Your task to perform on an android device: install app "Chime – Mobile Banking" Image 0: 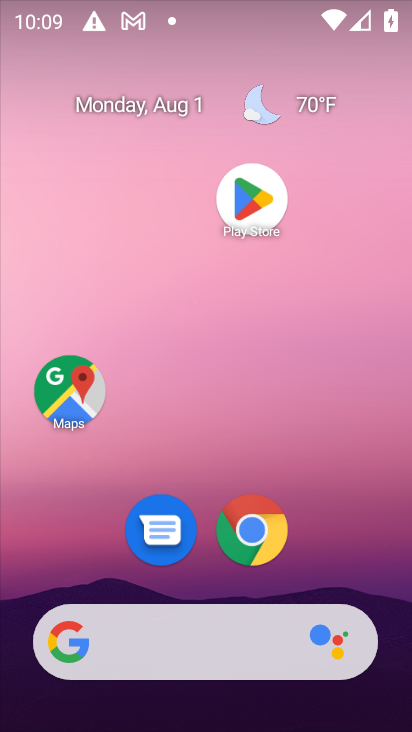
Step 0: click (241, 213)
Your task to perform on an android device: install app "Chime – Mobile Banking" Image 1: 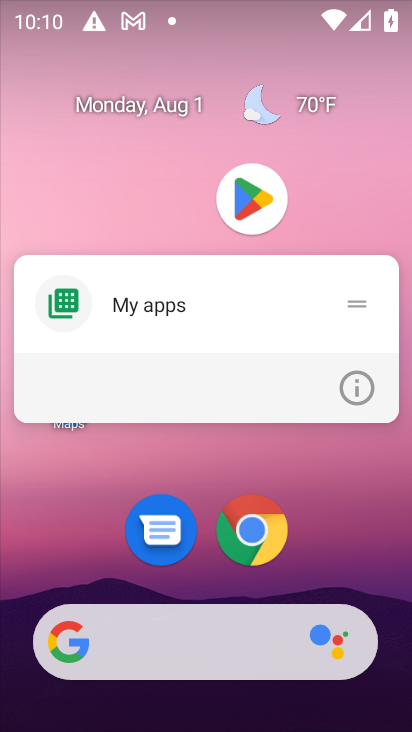
Step 1: click (240, 203)
Your task to perform on an android device: install app "Chime – Mobile Banking" Image 2: 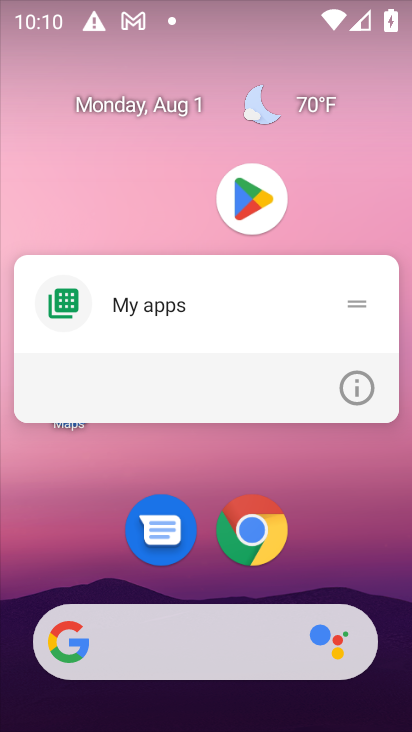
Step 2: click (240, 203)
Your task to perform on an android device: install app "Chime – Mobile Banking" Image 3: 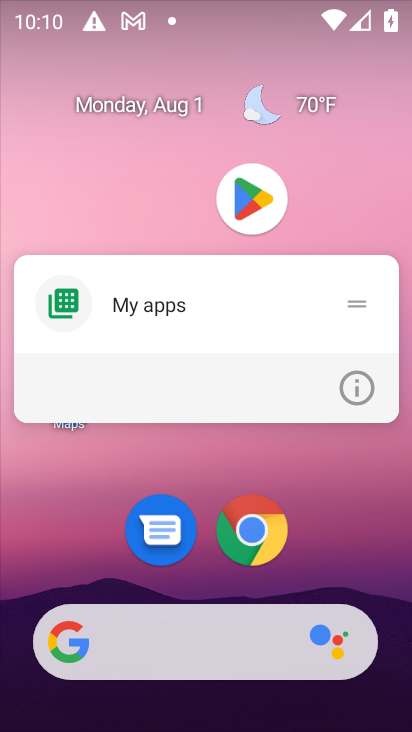
Step 3: click (240, 203)
Your task to perform on an android device: install app "Chime – Mobile Banking" Image 4: 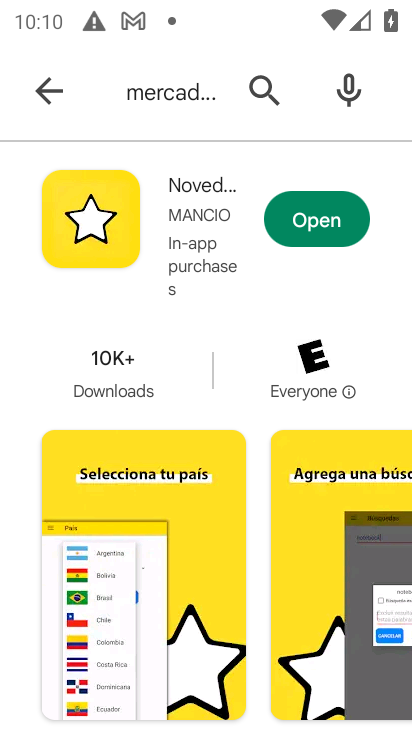
Step 4: click (267, 83)
Your task to perform on an android device: install app "Chime – Mobile Banking" Image 5: 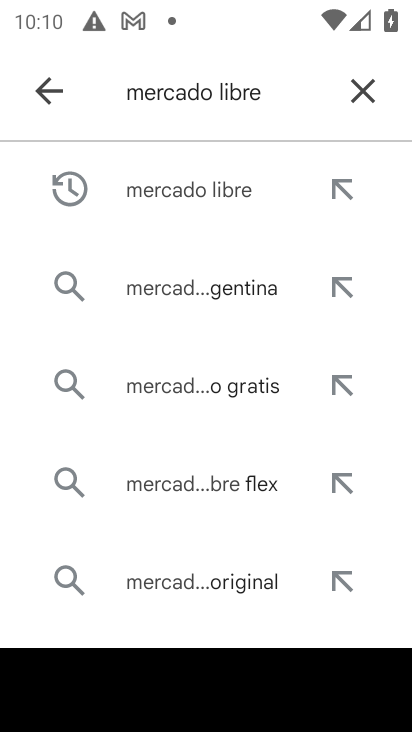
Step 5: click (367, 94)
Your task to perform on an android device: install app "Chime – Mobile Banking" Image 6: 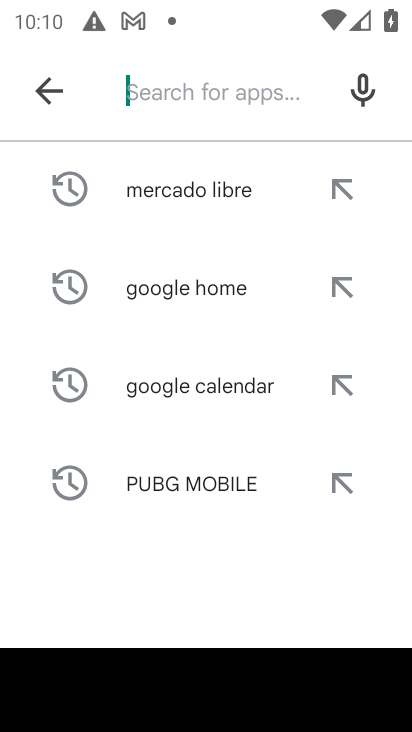
Step 6: type "chime mobile banking "
Your task to perform on an android device: install app "Chime – Mobile Banking" Image 7: 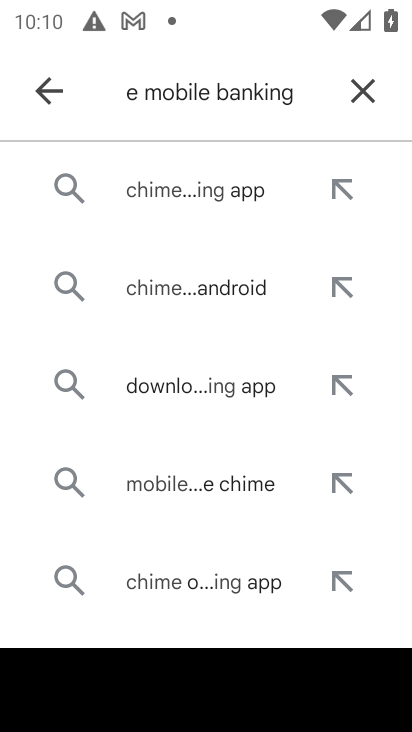
Step 7: click (247, 178)
Your task to perform on an android device: install app "Chime – Mobile Banking" Image 8: 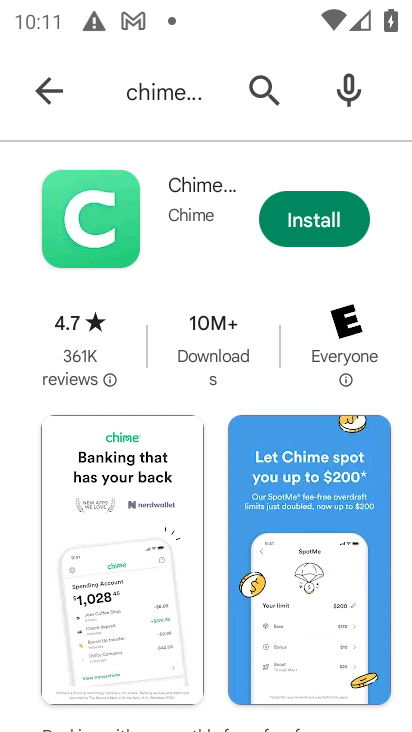
Step 8: click (320, 229)
Your task to perform on an android device: install app "Chime – Mobile Banking" Image 9: 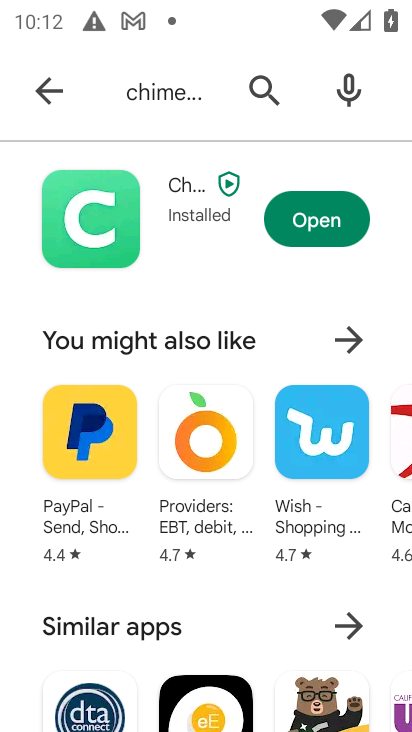
Step 9: task complete